Your task to perform on an android device: Open the calendar and show me this week's events? Image 0: 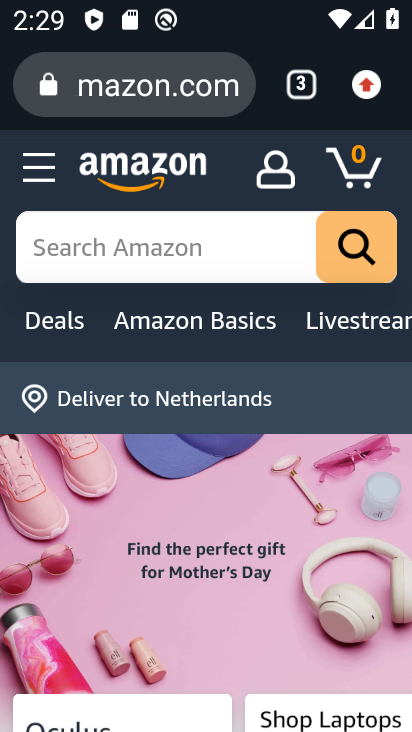
Step 0: press home button
Your task to perform on an android device: Open the calendar and show me this week's events? Image 1: 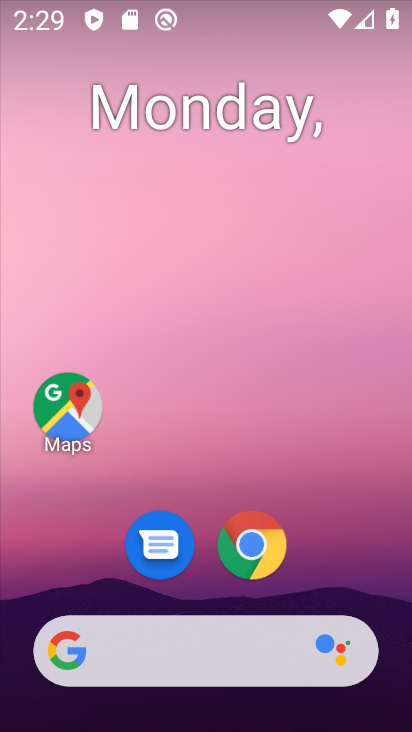
Step 1: drag from (147, 471) to (232, 62)
Your task to perform on an android device: Open the calendar and show me this week's events? Image 2: 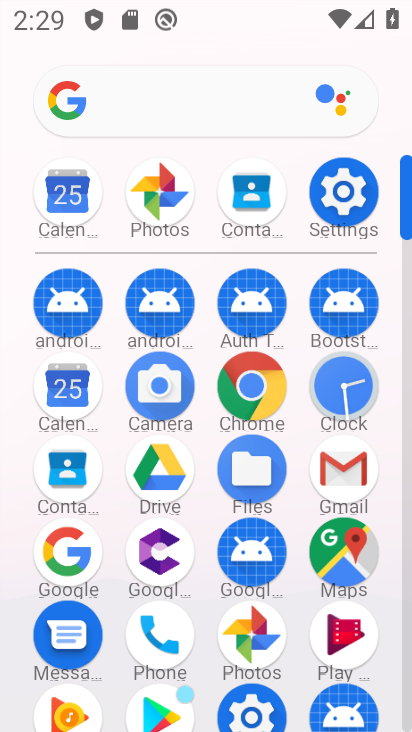
Step 2: click (64, 185)
Your task to perform on an android device: Open the calendar and show me this week's events? Image 3: 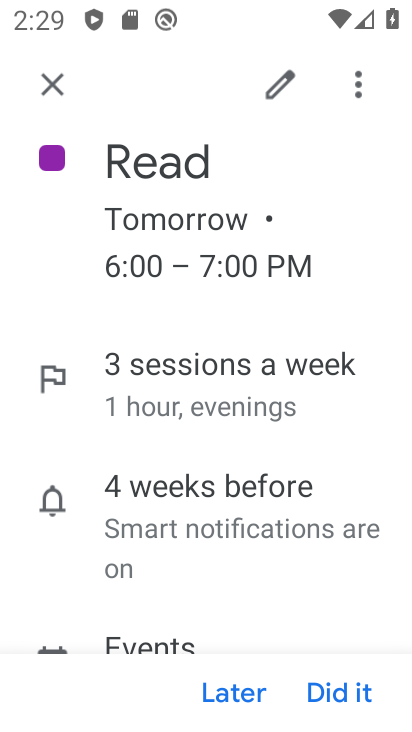
Step 3: click (57, 74)
Your task to perform on an android device: Open the calendar and show me this week's events? Image 4: 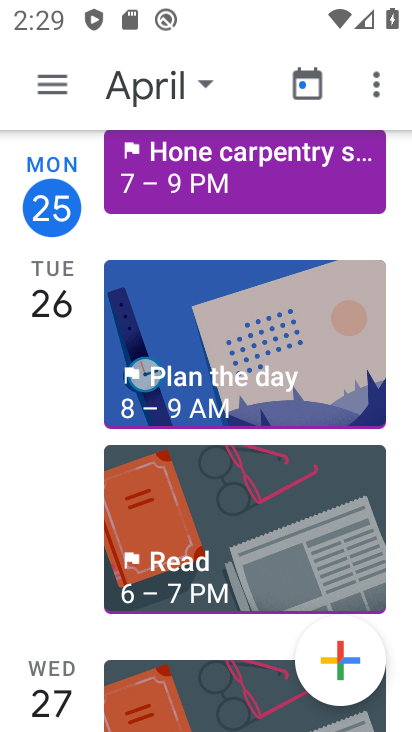
Step 4: drag from (262, 491) to (311, 136)
Your task to perform on an android device: Open the calendar and show me this week's events? Image 5: 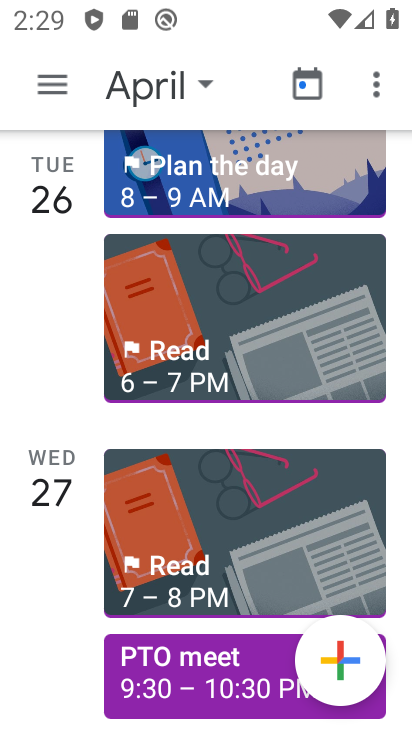
Step 5: drag from (177, 647) to (252, 206)
Your task to perform on an android device: Open the calendar and show me this week's events? Image 6: 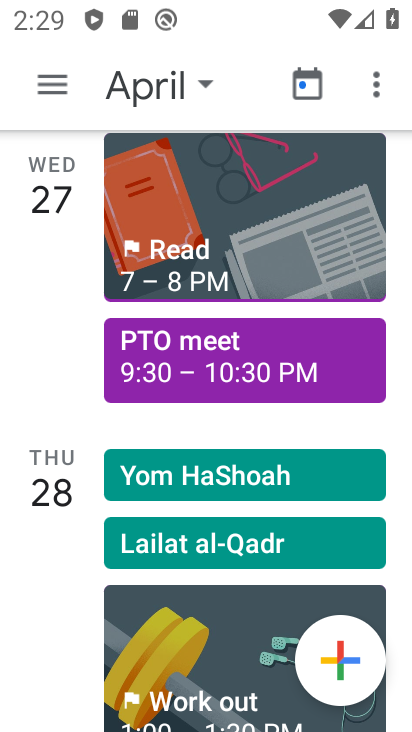
Step 6: click (175, 356)
Your task to perform on an android device: Open the calendar and show me this week's events? Image 7: 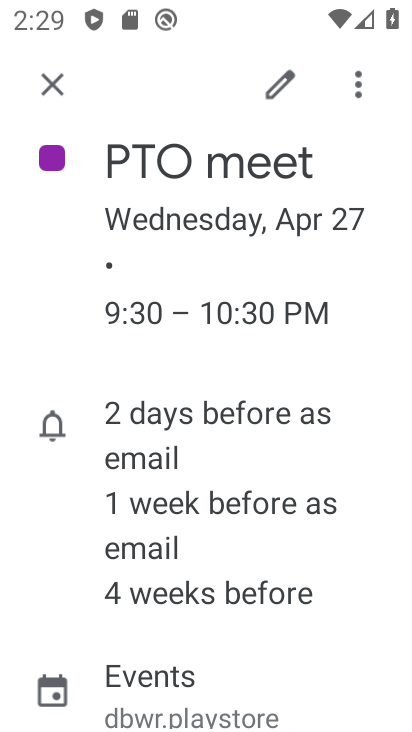
Step 7: task complete